Your task to perform on an android device: Open Youtube and go to the subscriptions tab Image 0: 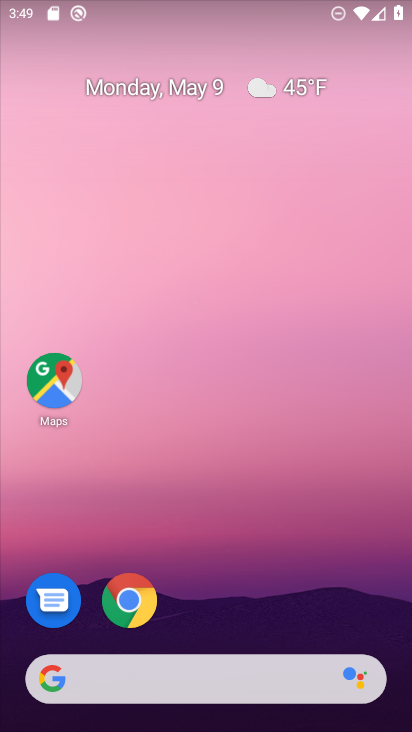
Step 0: drag from (272, 538) to (156, 6)
Your task to perform on an android device: Open Youtube and go to the subscriptions tab Image 1: 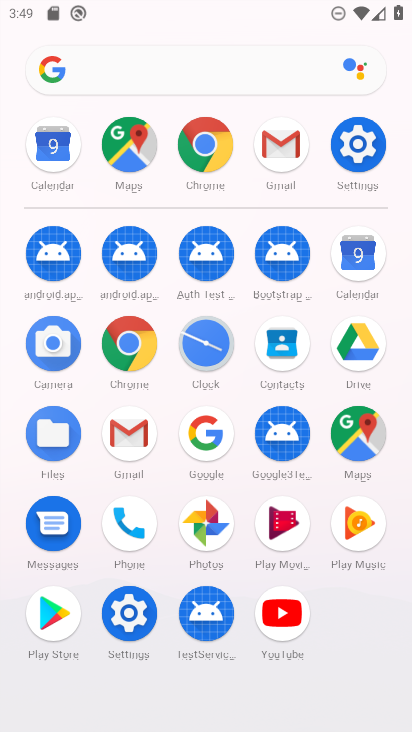
Step 1: drag from (9, 513) to (0, 146)
Your task to perform on an android device: Open Youtube and go to the subscriptions tab Image 2: 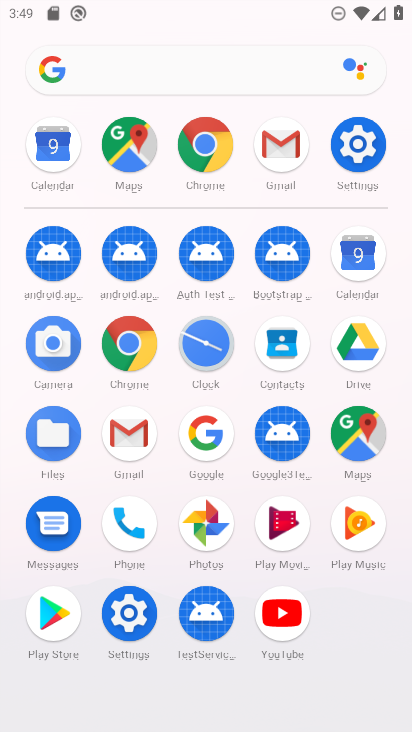
Step 2: click (282, 611)
Your task to perform on an android device: Open Youtube and go to the subscriptions tab Image 3: 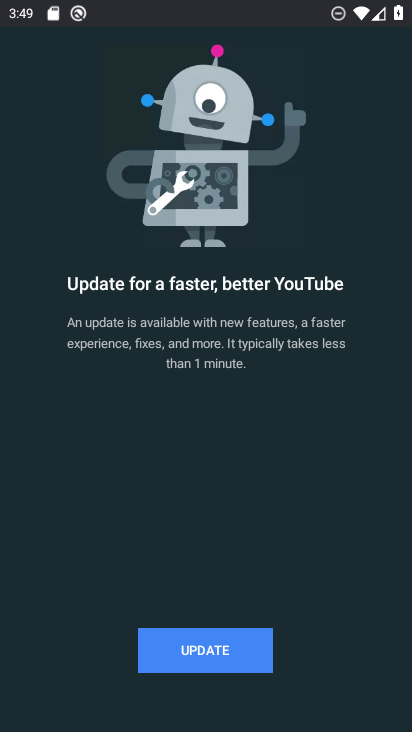
Step 3: press back button
Your task to perform on an android device: Open Youtube and go to the subscriptions tab Image 4: 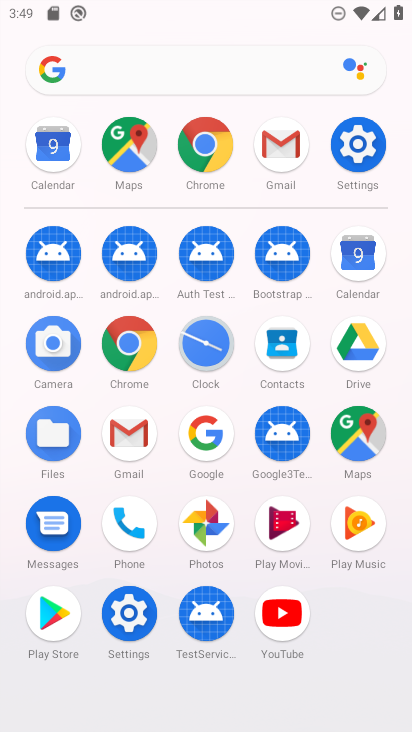
Step 4: click (280, 621)
Your task to perform on an android device: Open Youtube and go to the subscriptions tab Image 5: 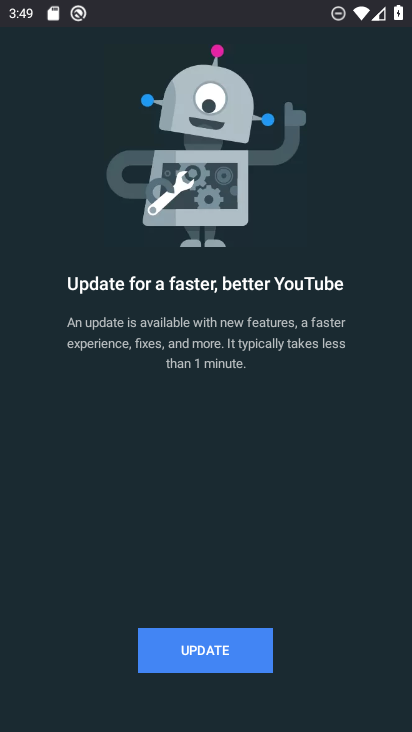
Step 5: click (245, 644)
Your task to perform on an android device: Open Youtube and go to the subscriptions tab Image 6: 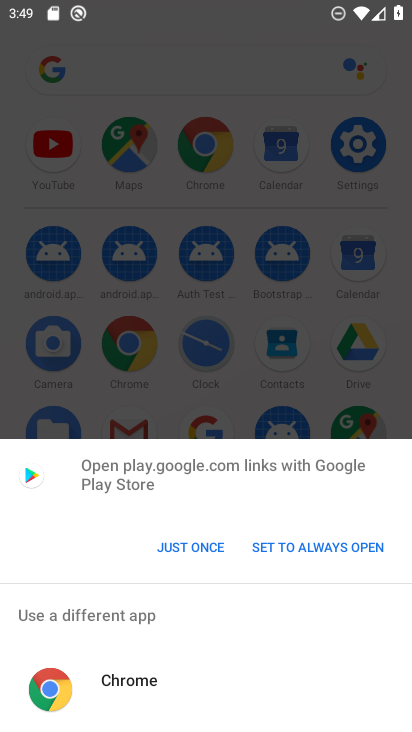
Step 6: click (200, 549)
Your task to perform on an android device: Open Youtube and go to the subscriptions tab Image 7: 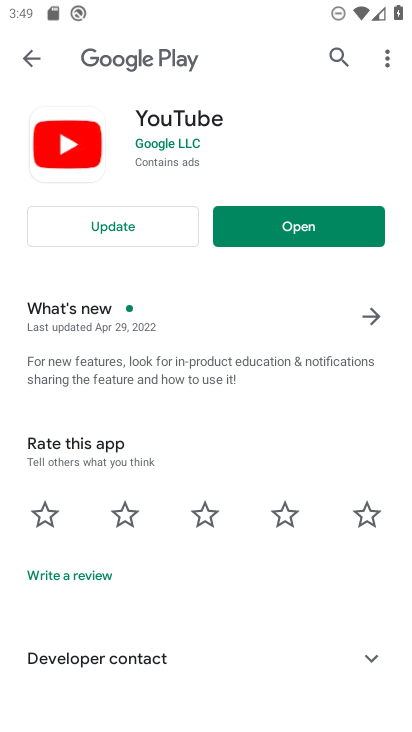
Step 7: click (110, 229)
Your task to perform on an android device: Open Youtube and go to the subscriptions tab Image 8: 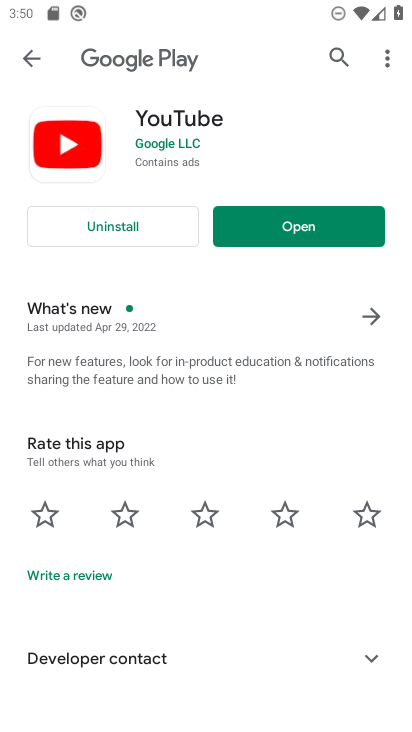
Step 8: click (341, 226)
Your task to perform on an android device: Open Youtube and go to the subscriptions tab Image 9: 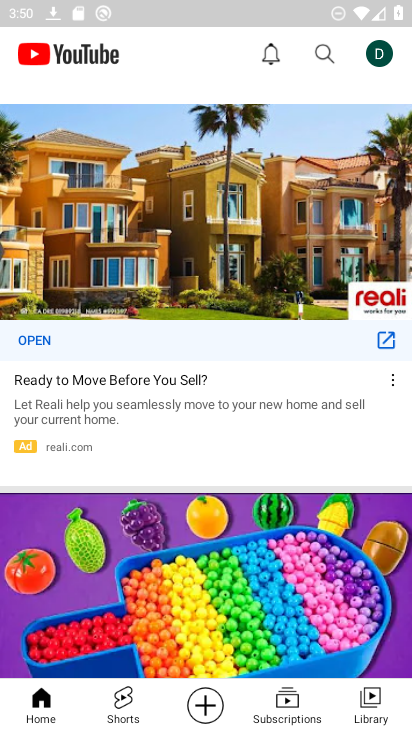
Step 9: click (289, 708)
Your task to perform on an android device: Open Youtube and go to the subscriptions tab Image 10: 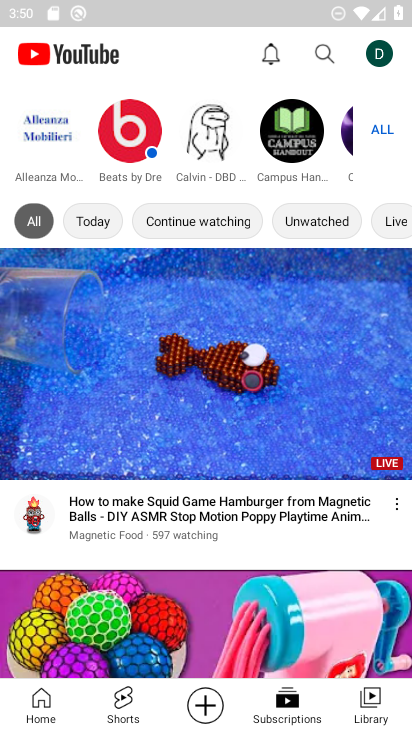
Step 10: task complete